Your task to perform on an android device: Is it going to rain tomorrow? Image 0: 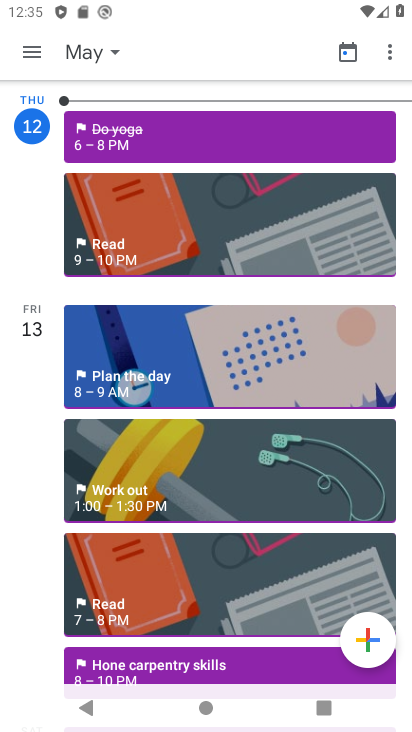
Step 0: press home button
Your task to perform on an android device: Is it going to rain tomorrow? Image 1: 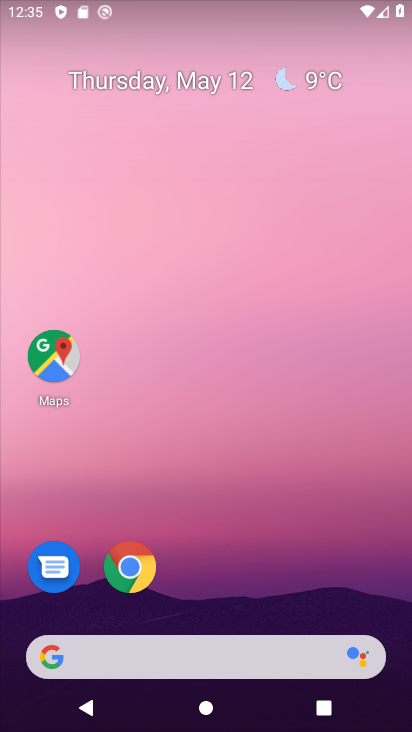
Step 1: click (299, 92)
Your task to perform on an android device: Is it going to rain tomorrow? Image 2: 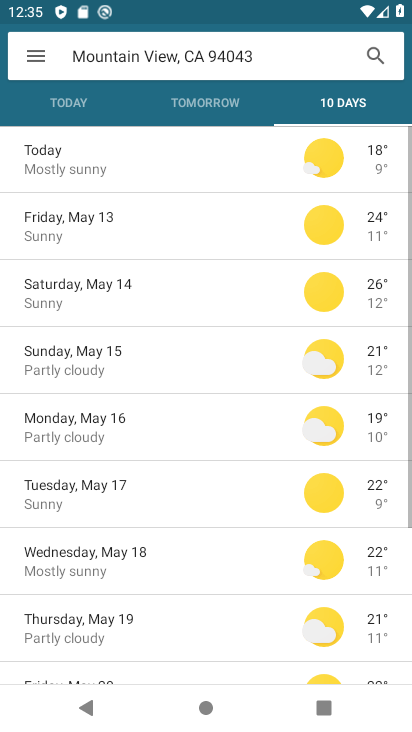
Step 2: click (209, 98)
Your task to perform on an android device: Is it going to rain tomorrow? Image 3: 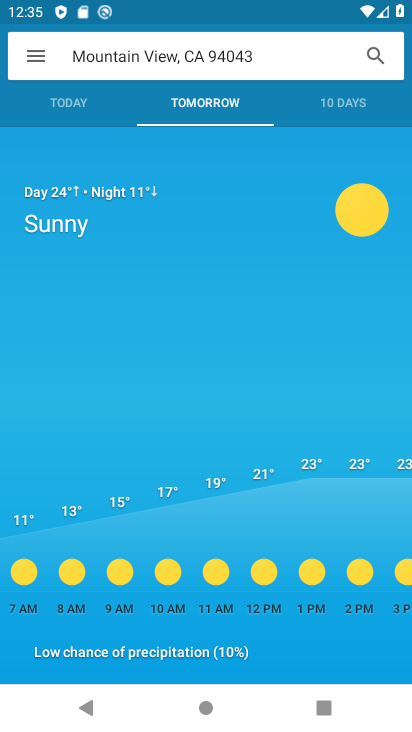
Step 3: task complete